Your task to perform on an android device: open app "Spotify: Music and Podcasts" Image 0: 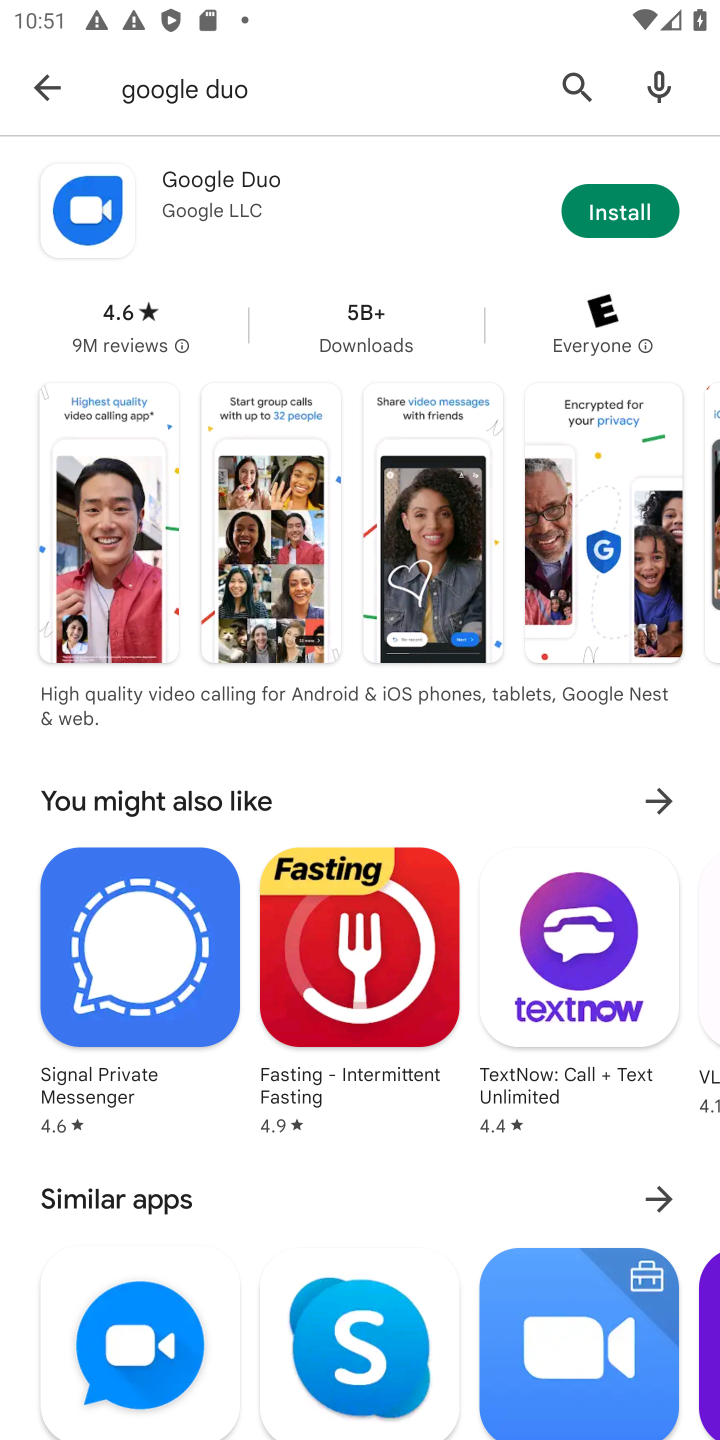
Step 0: click (576, 95)
Your task to perform on an android device: open app "Spotify: Music and Podcasts" Image 1: 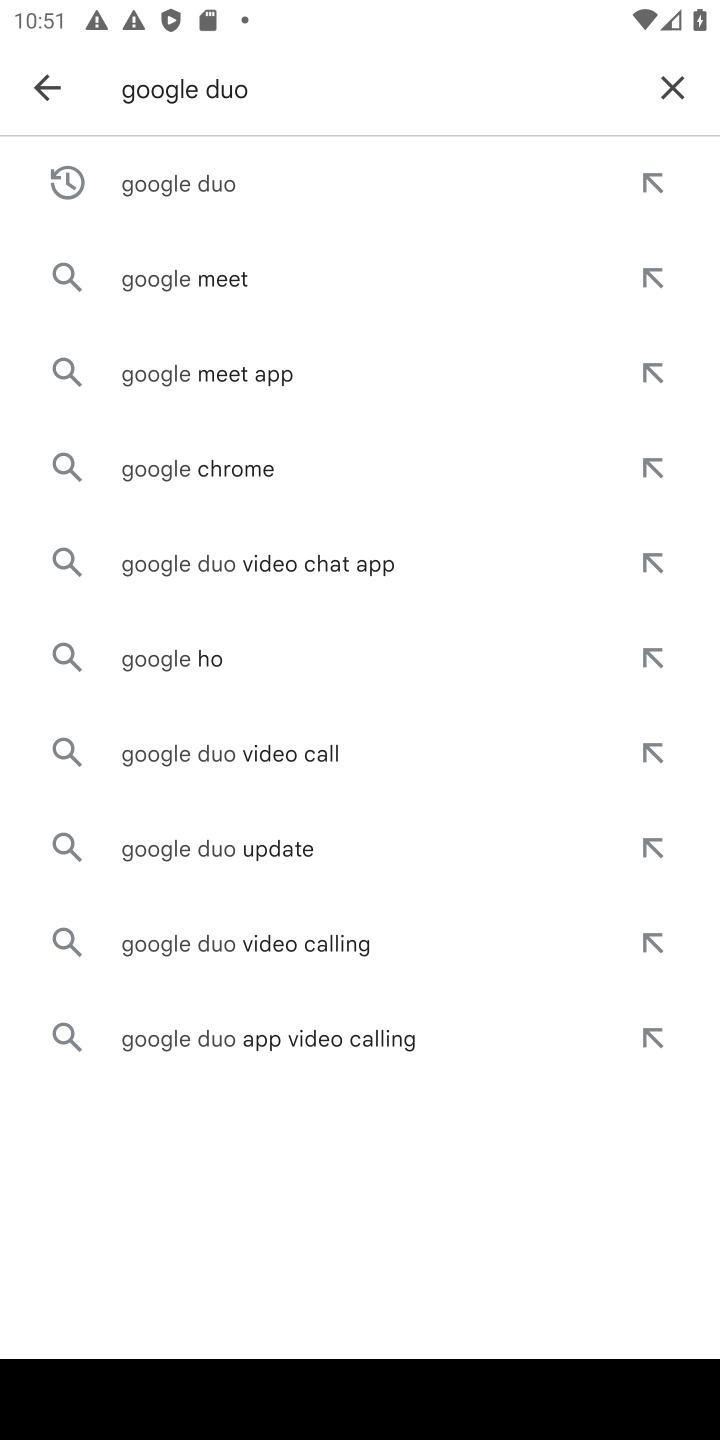
Step 1: click (663, 86)
Your task to perform on an android device: open app "Spotify: Music and Podcasts" Image 2: 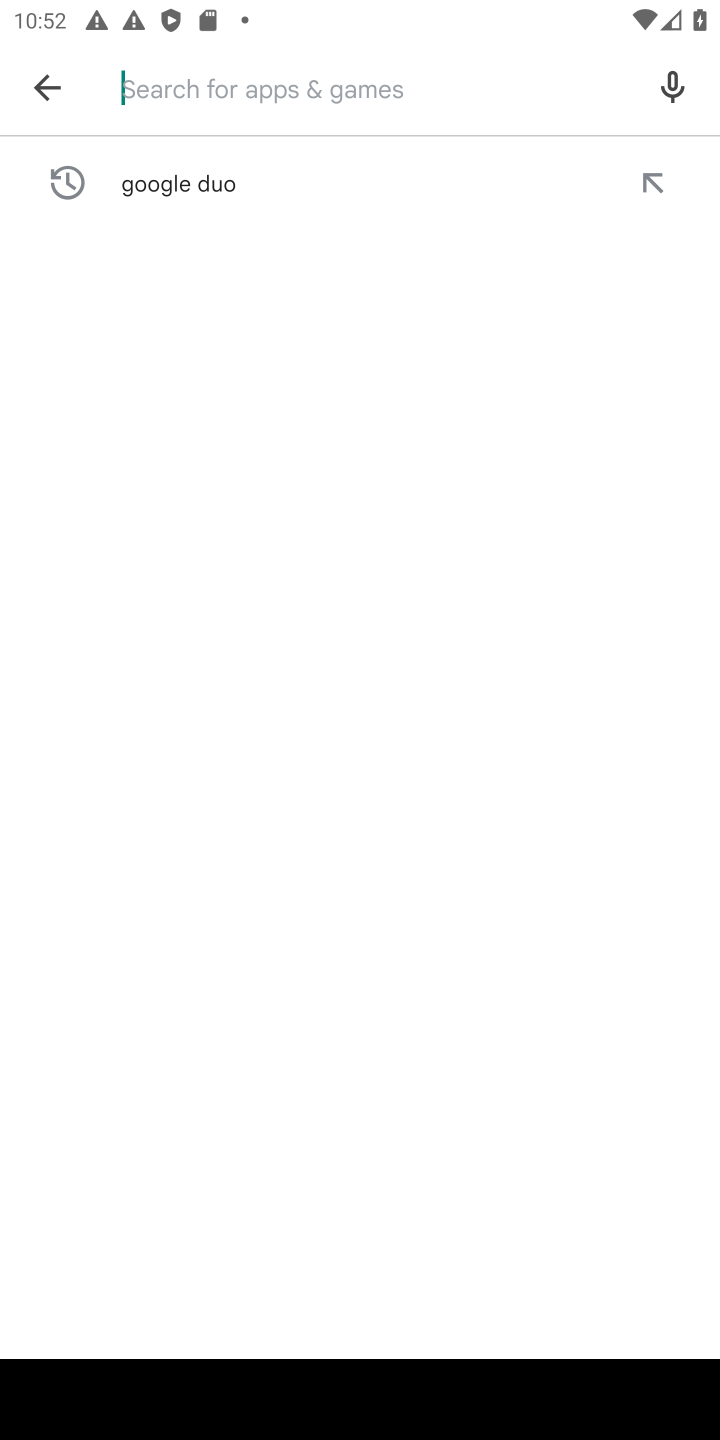
Step 2: type "Spotify: Music and Podcasts"
Your task to perform on an android device: open app "Spotify: Music and Podcasts" Image 3: 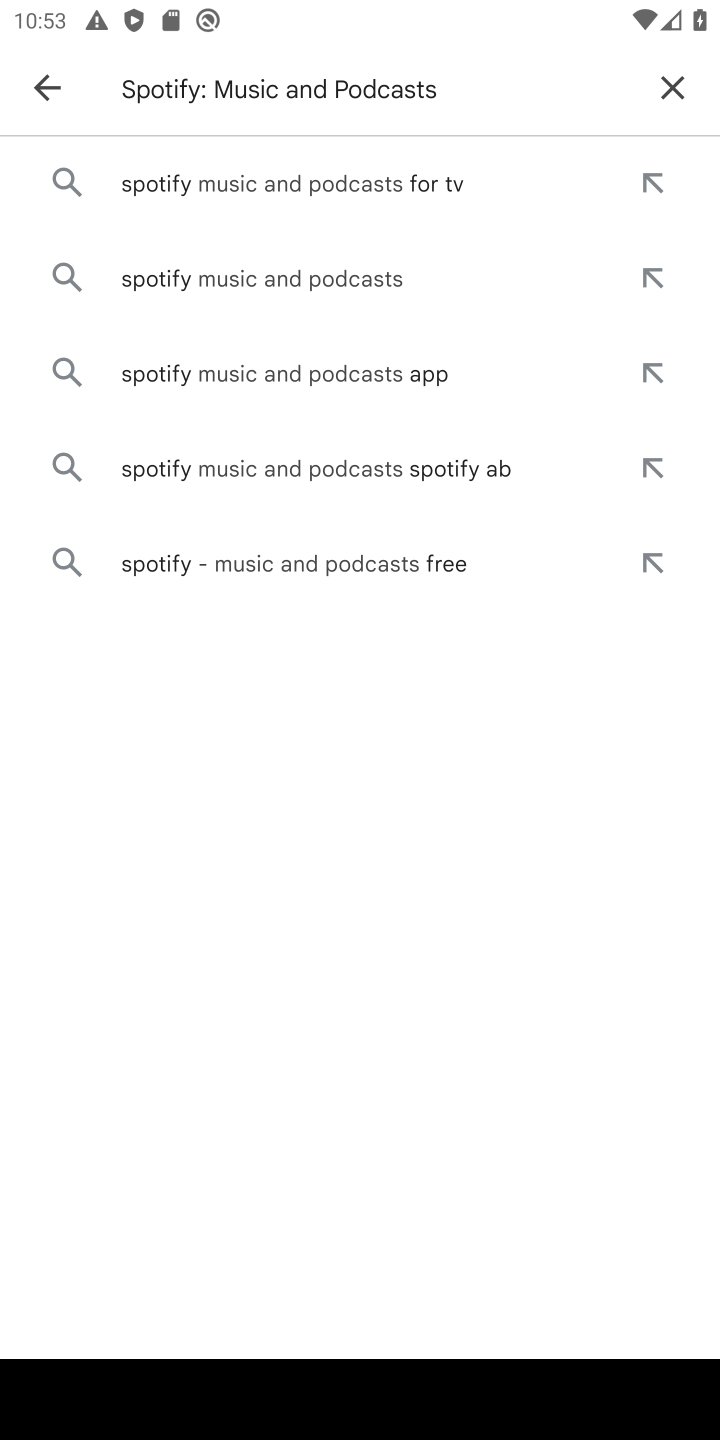
Step 3: click (257, 169)
Your task to perform on an android device: open app "Spotify: Music and Podcasts" Image 4: 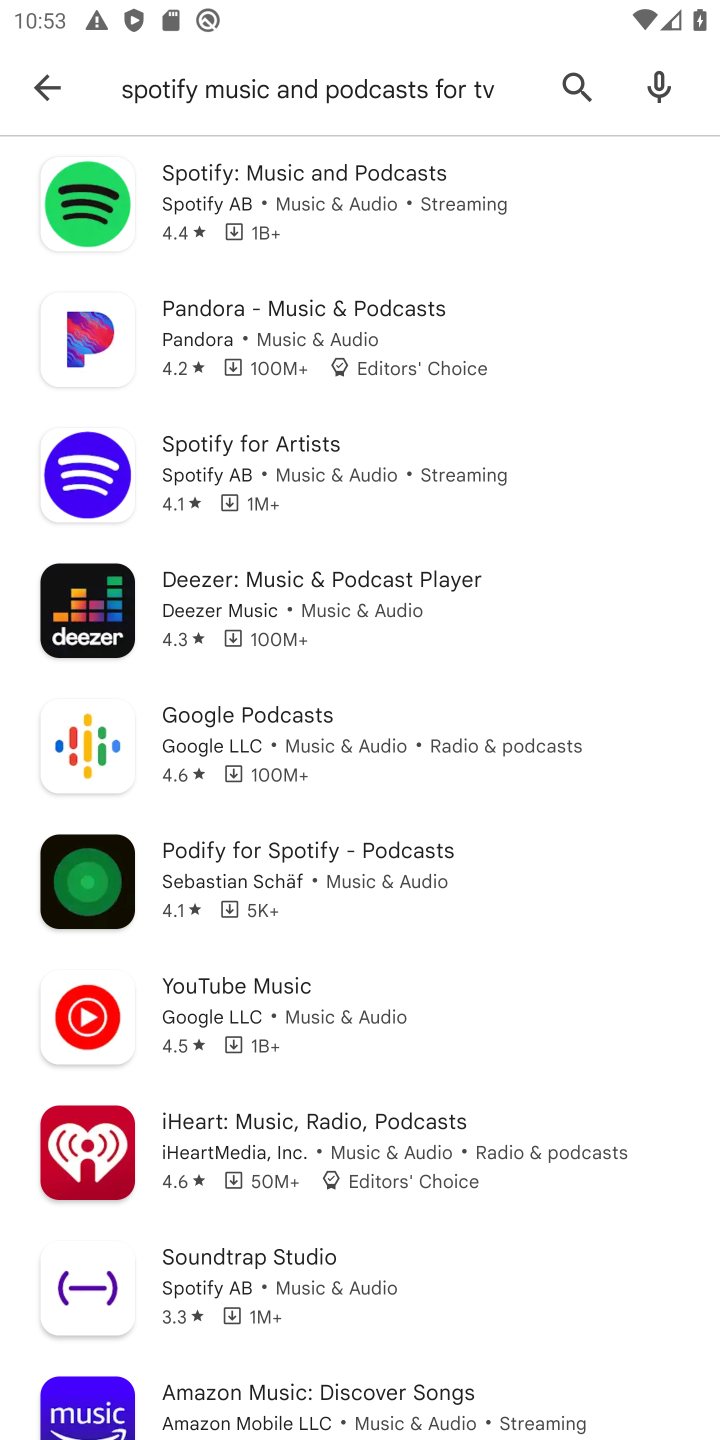
Step 4: click (342, 221)
Your task to perform on an android device: open app "Spotify: Music and Podcasts" Image 5: 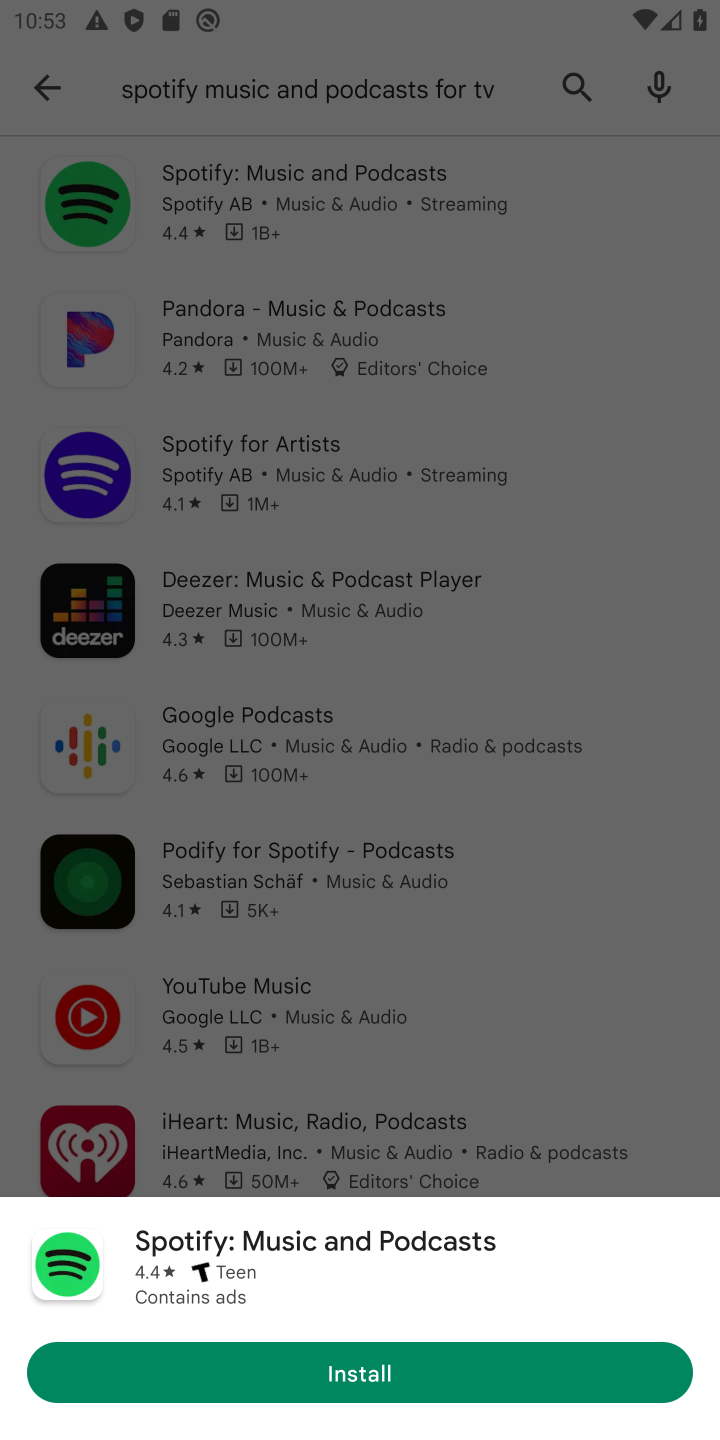
Step 5: click (350, 1381)
Your task to perform on an android device: open app "Spotify: Music and Podcasts" Image 6: 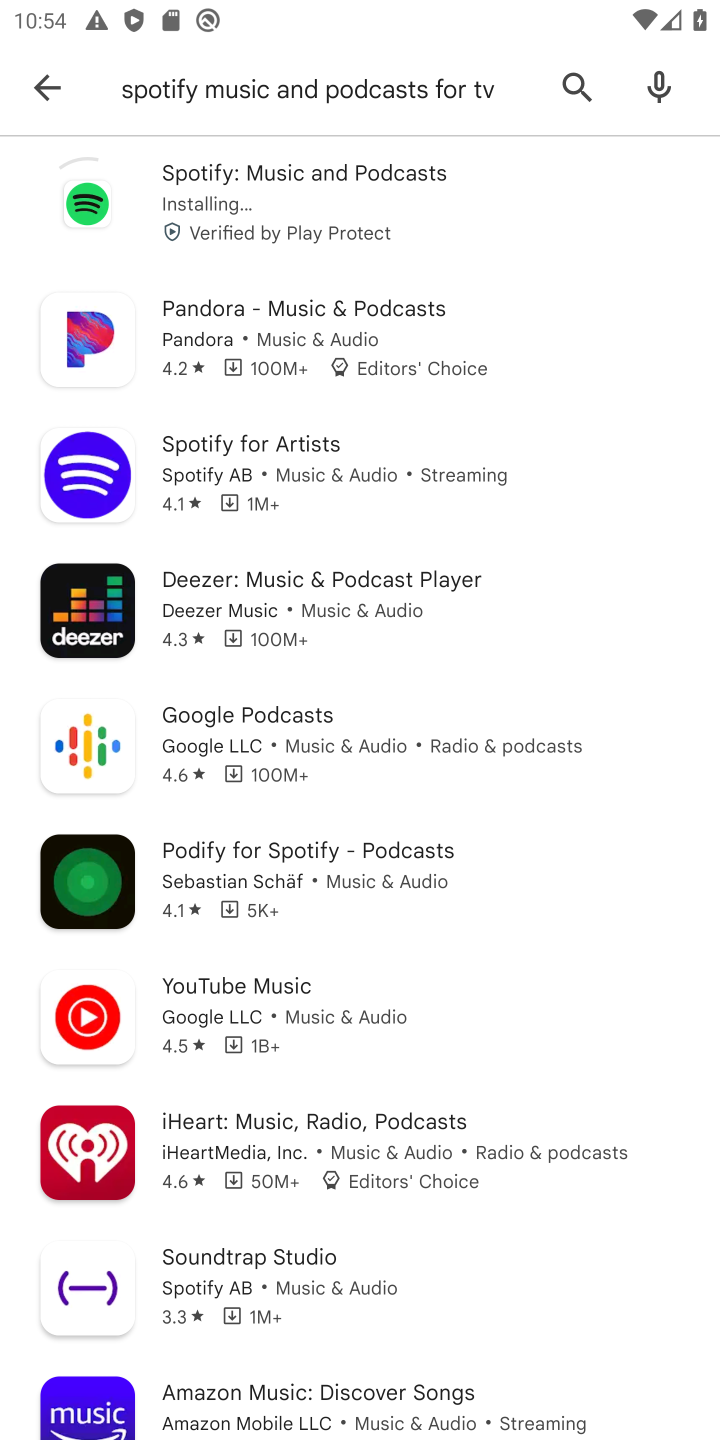
Step 6: click (199, 208)
Your task to perform on an android device: open app "Spotify: Music and Podcasts" Image 7: 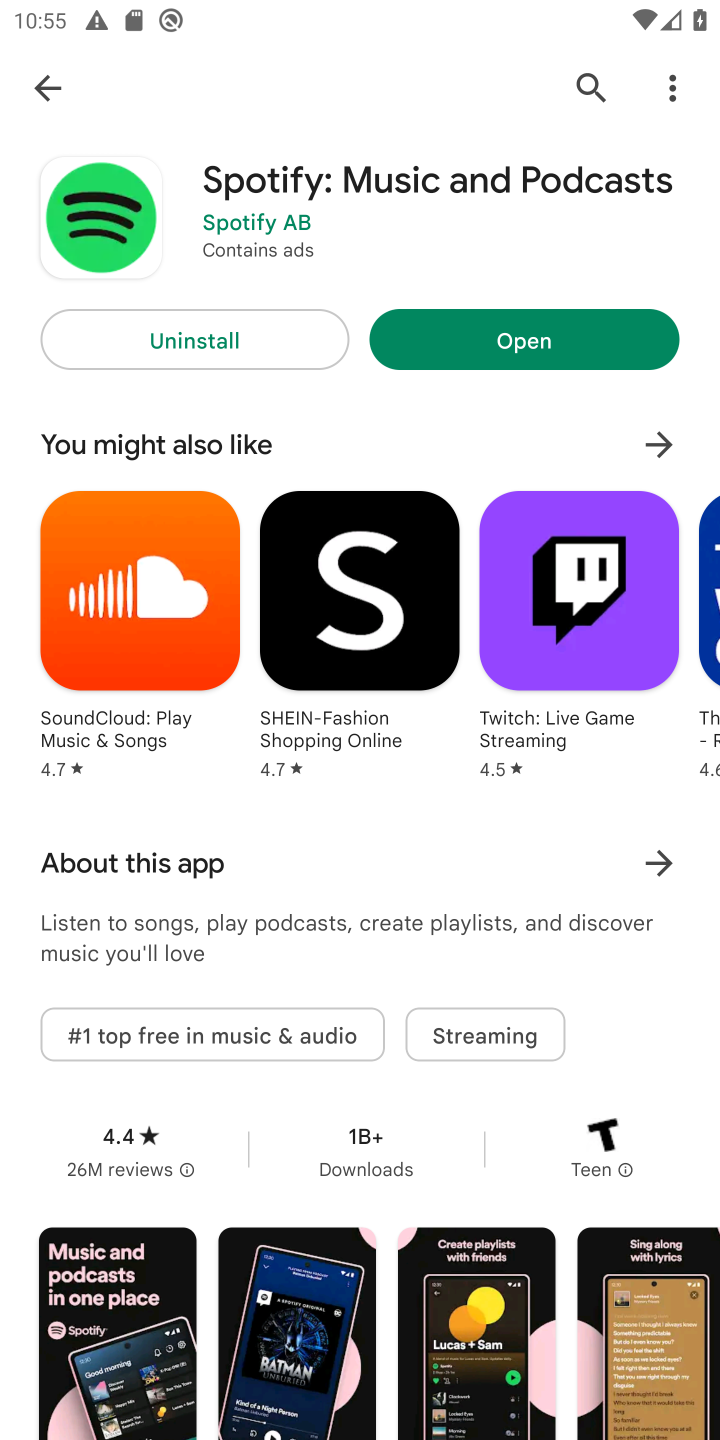
Step 7: click (647, 328)
Your task to perform on an android device: open app "Spotify: Music and Podcasts" Image 8: 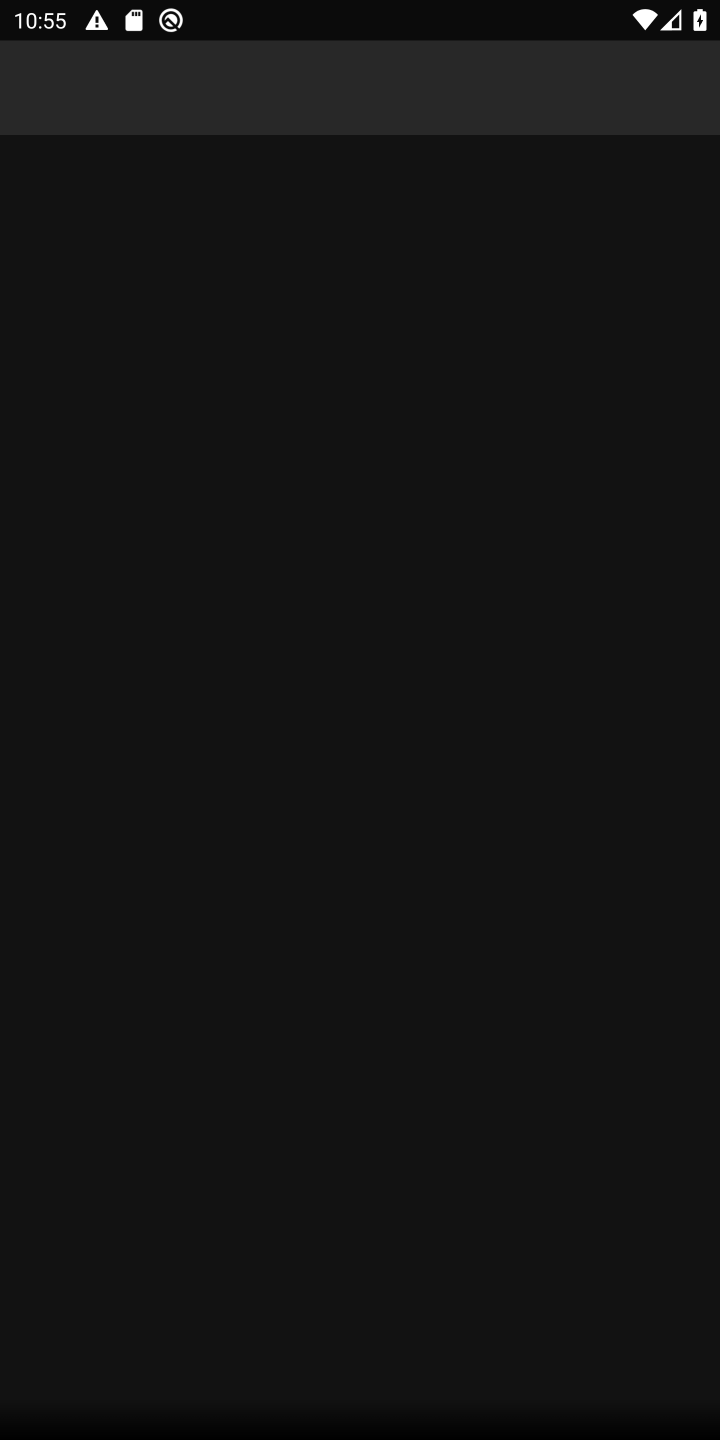
Step 8: task complete